Your task to perform on an android device: Is it going to rain tomorrow? Image 0: 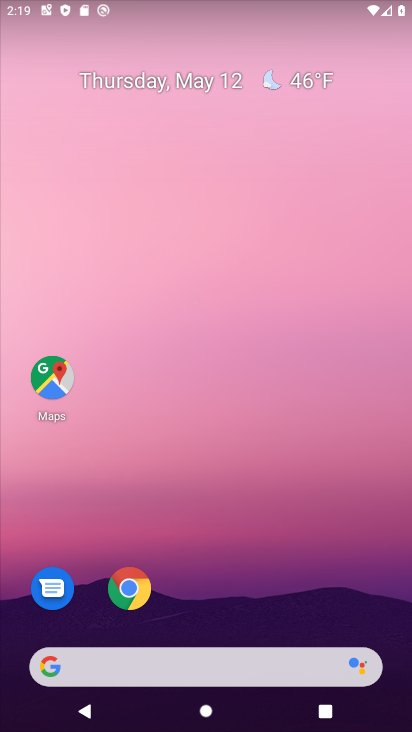
Step 0: click (173, 679)
Your task to perform on an android device: Is it going to rain tomorrow? Image 1: 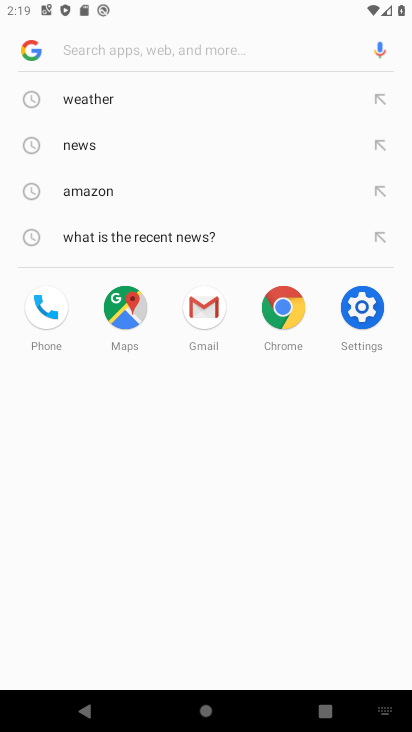
Step 1: press home button
Your task to perform on an android device: Is it going to rain tomorrow? Image 2: 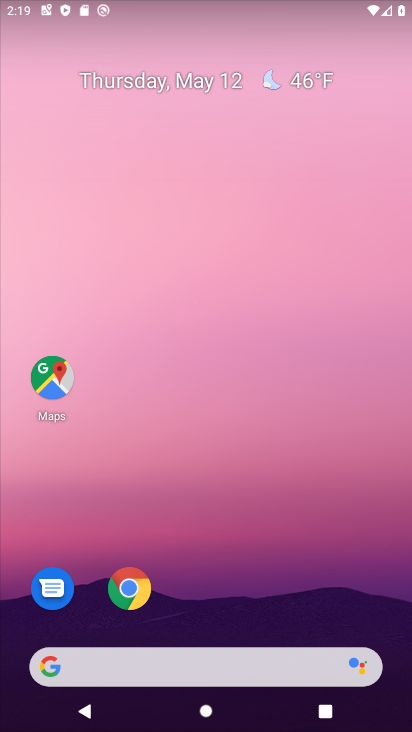
Step 2: drag from (249, 619) to (307, 255)
Your task to perform on an android device: Is it going to rain tomorrow? Image 3: 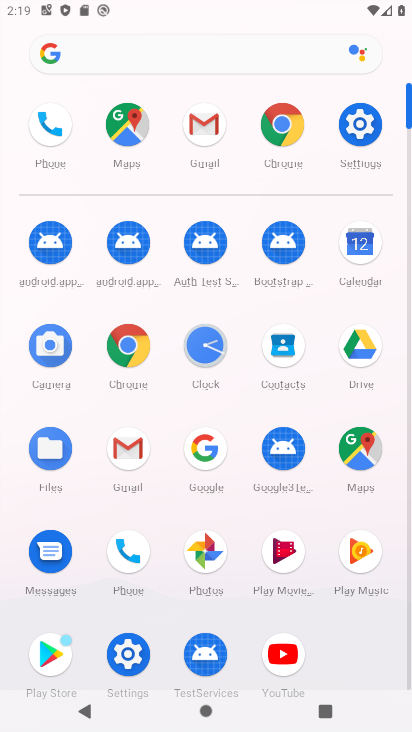
Step 3: click (198, 463)
Your task to perform on an android device: Is it going to rain tomorrow? Image 4: 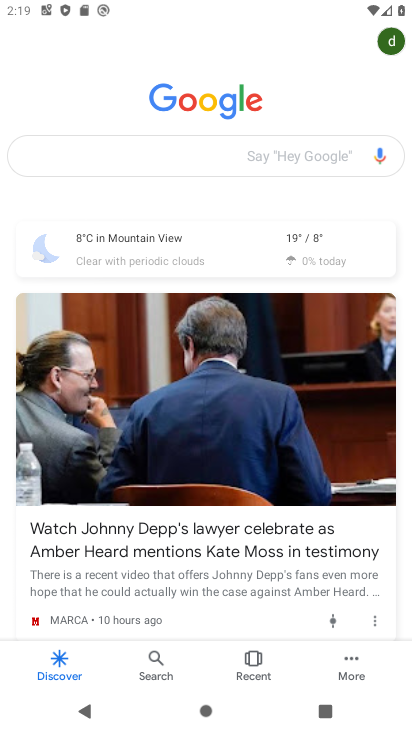
Step 4: click (219, 146)
Your task to perform on an android device: Is it going to rain tomorrow? Image 5: 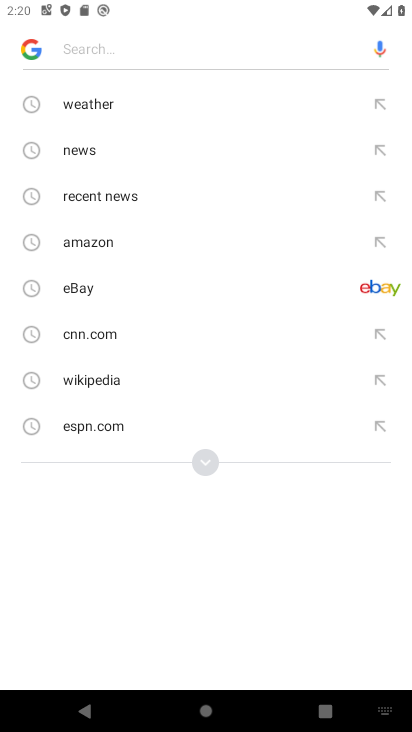
Step 5: type "is it going to rain tomorrow?"
Your task to perform on an android device: Is it going to rain tomorrow? Image 6: 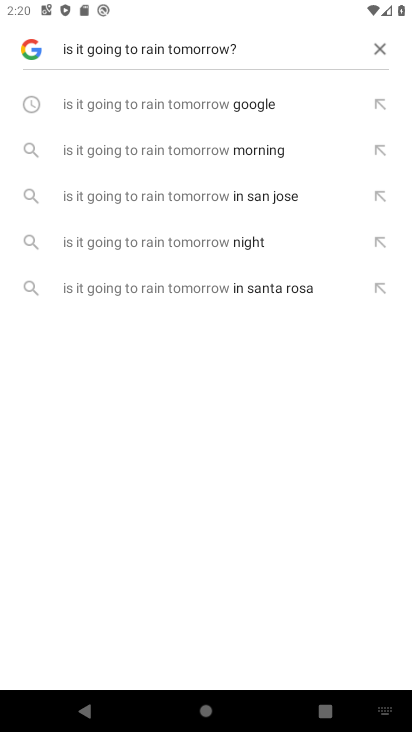
Step 6: click (284, 99)
Your task to perform on an android device: Is it going to rain tomorrow? Image 7: 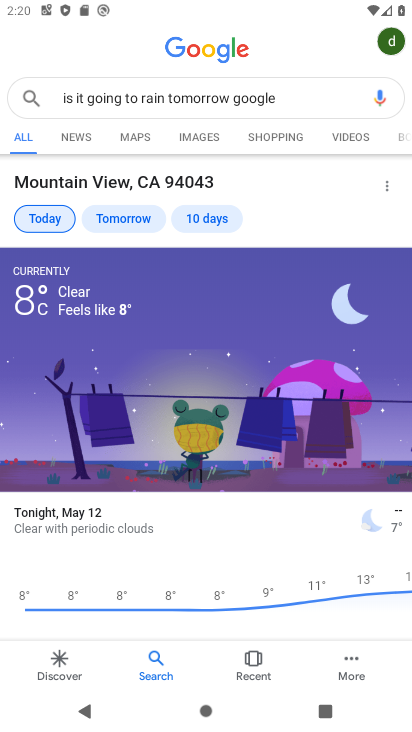
Step 7: click (145, 209)
Your task to perform on an android device: Is it going to rain tomorrow? Image 8: 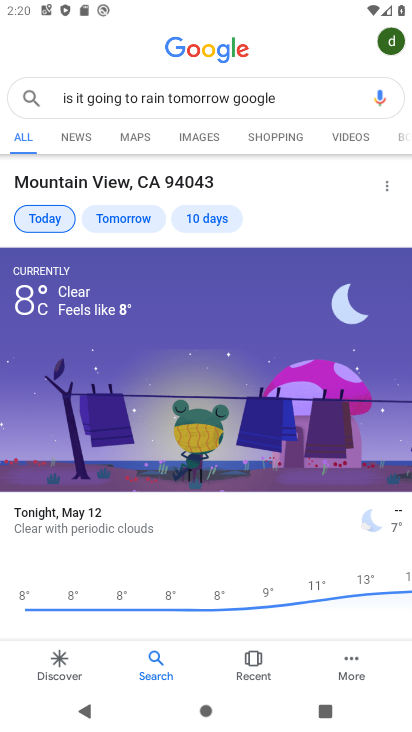
Step 8: click (141, 225)
Your task to perform on an android device: Is it going to rain tomorrow? Image 9: 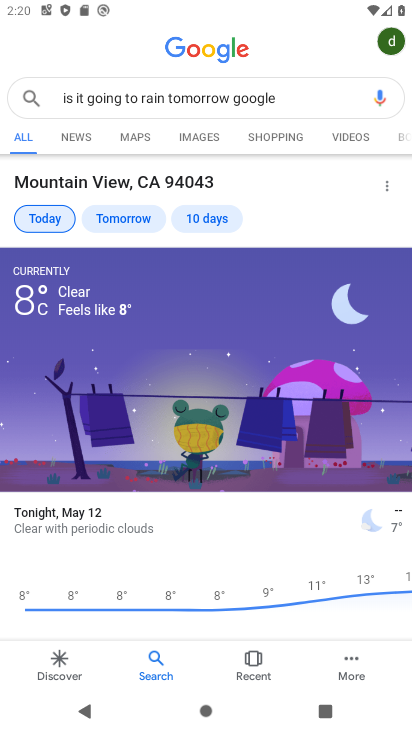
Step 9: click (141, 225)
Your task to perform on an android device: Is it going to rain tomorrow? Image 10: 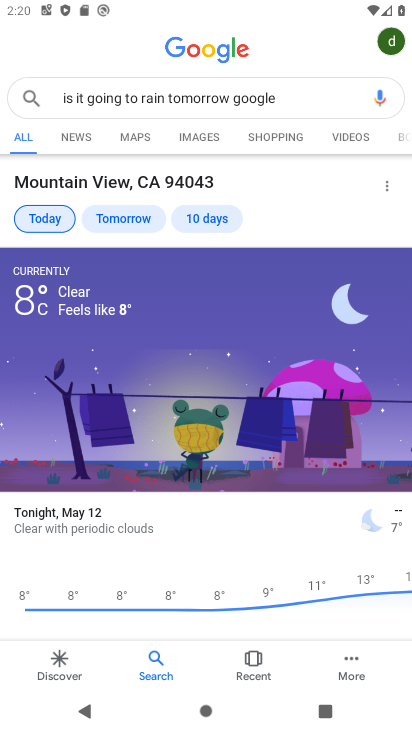
Step 10: task complete